Your task to perform on an android device: Go to display settings Image 0: 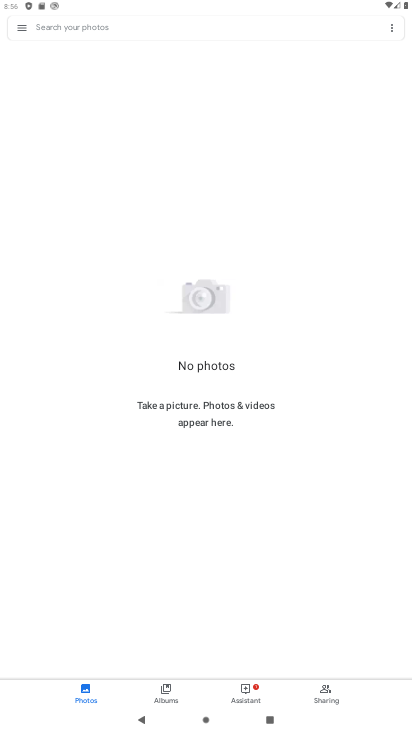
Step 0: press home button
Your task to perform on an android device: Go to display settings Image 1: 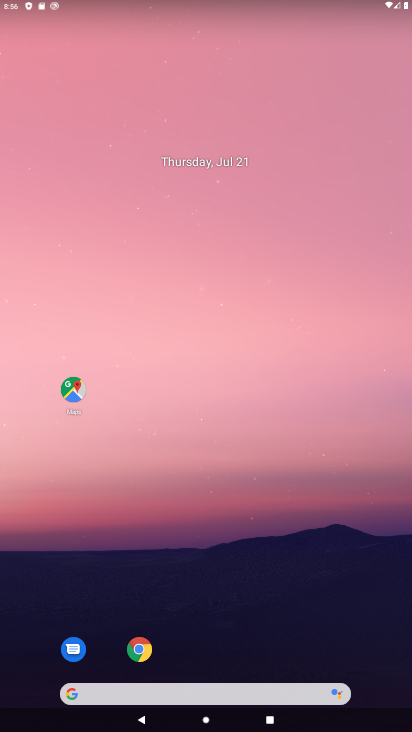
Step 1: drag from (239, 542) to (232, 6)
Your task to perform on an android device: Go to display settings Image 2: 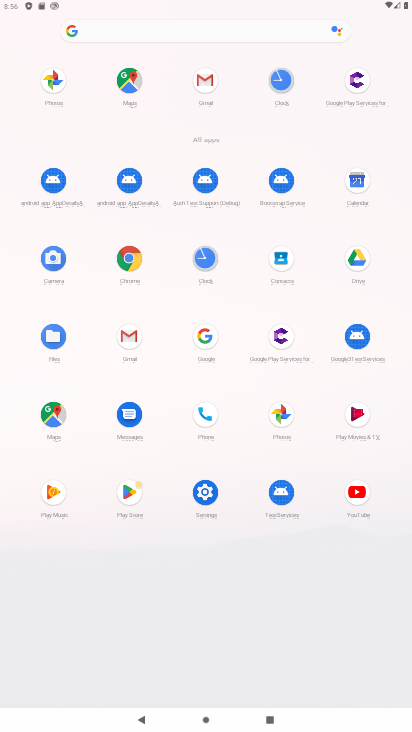
Step 2: click (199, 485)
Your task to perform on an android device: Go to display settings Image 3: 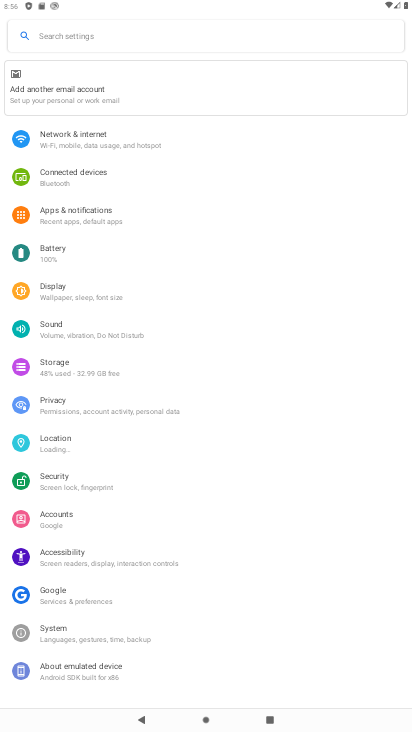
Step 3: click (75, 291)
Your task to perform on an android device: Go to display settings Image 4: 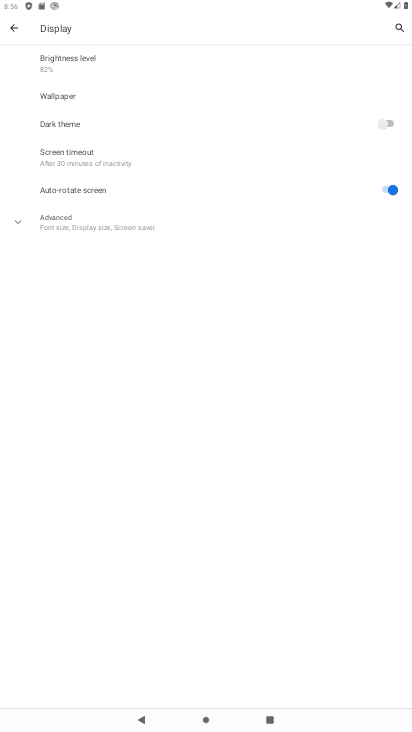
Step 4: task complete